Your task to perform on an android device: toggle notifications settings in the gmail app Image 0: 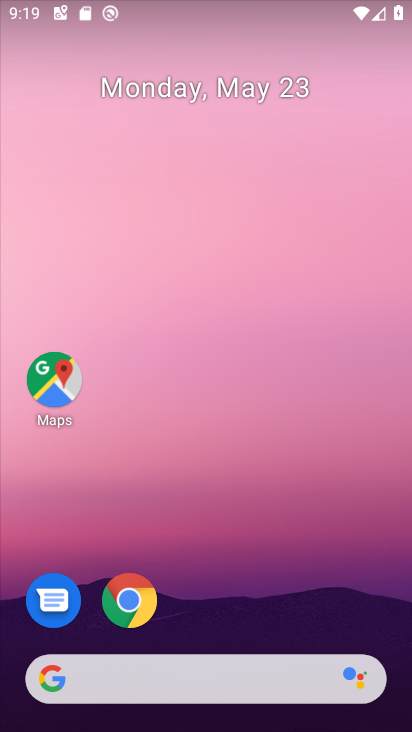
Step 0: click (129, 596)
Your task to perform on an android device: toggle notifications settings in the gmail app Image 1: 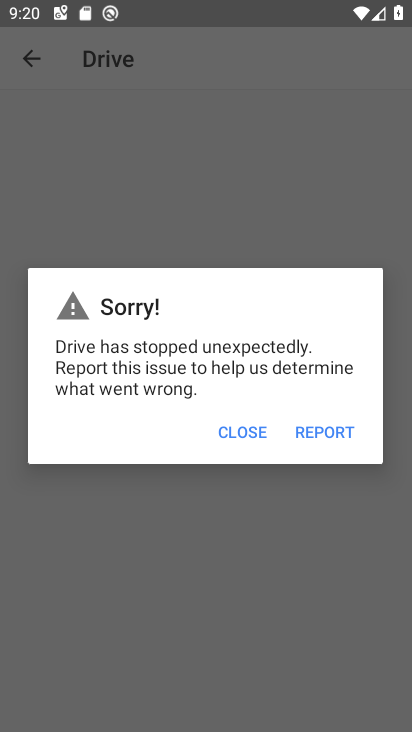
Step 1: click (247, 431)
Your task to perform on an android device: toggle notifications settings in the gmail app Image 2: 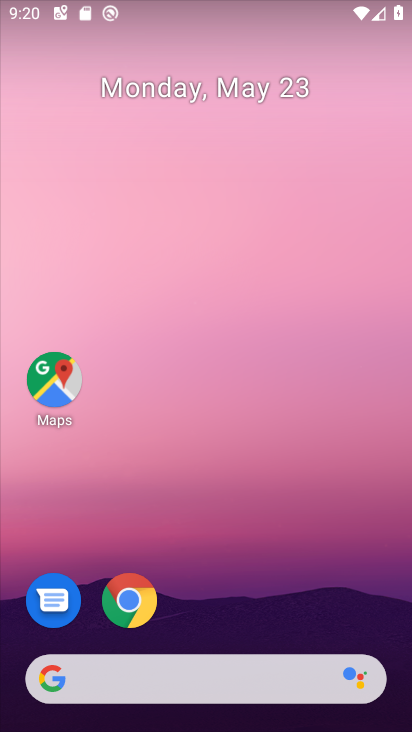
Step 2: drag from (188, 719) to (134, 159)
Your task to perform on an android device: toggle notifications settings in the gmail app Image 3: 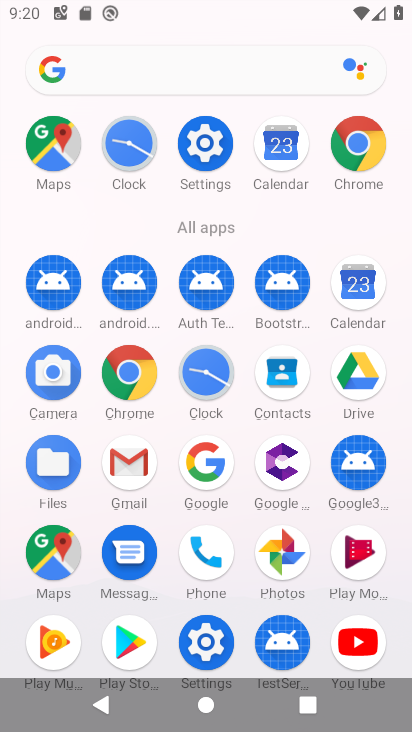
Step 3: click (126, 461)
Your task to perform on an android device: toggle notifications settings in the gmail app Image 4: 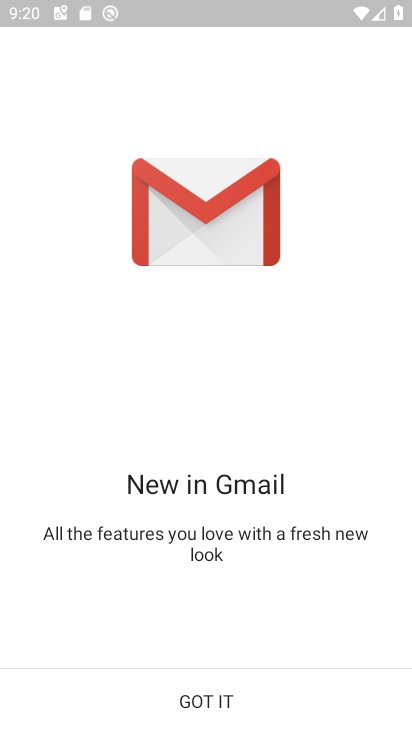
Step 4: click (202, 695)
Your task to perform on an android device: toggle notifications settings in the gmail app Image 5: 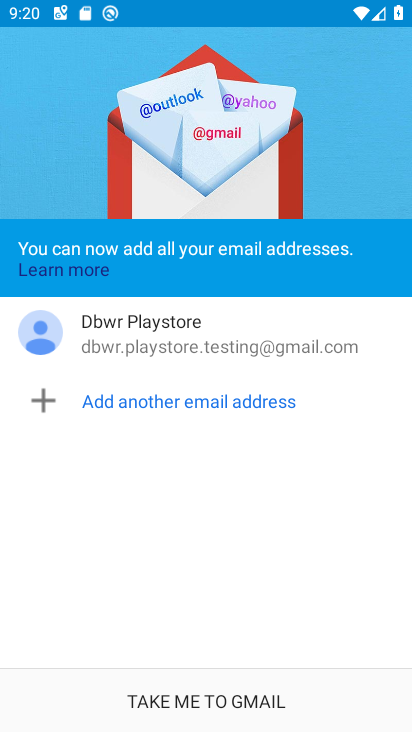
Step 5: click (188, 694)
Your task to perform on an android device: toggle notifications settings in the gmail app Image 6: 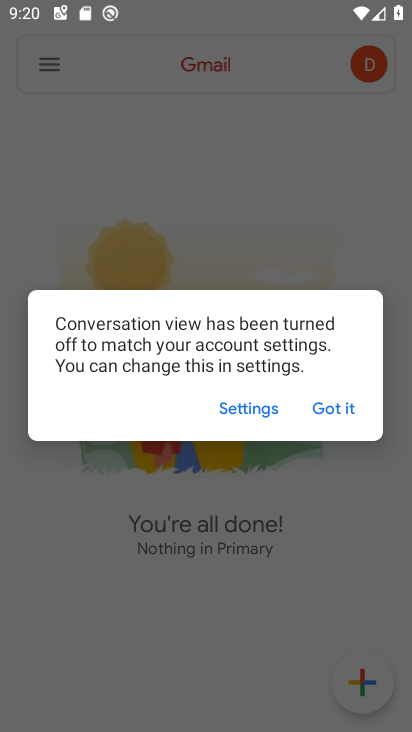
Step 6: click (333, 409)
Your task to perform on an android device: toggle notifications settings in the gmail app Image 7: 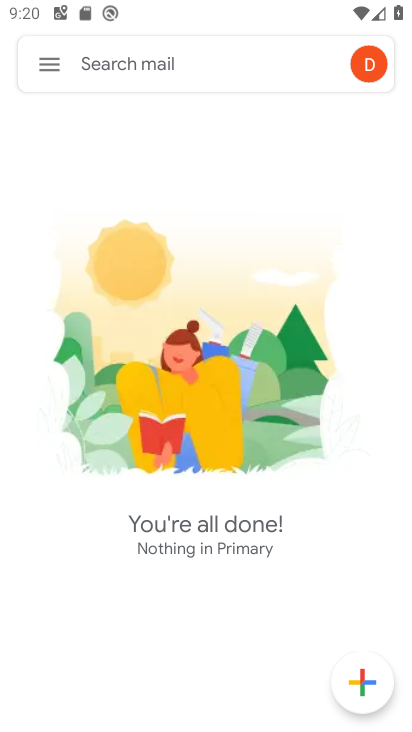
Step 7: click (44, 63)
Your task to perform on an android device: toggle notifications settings in the gmail app Image 8: 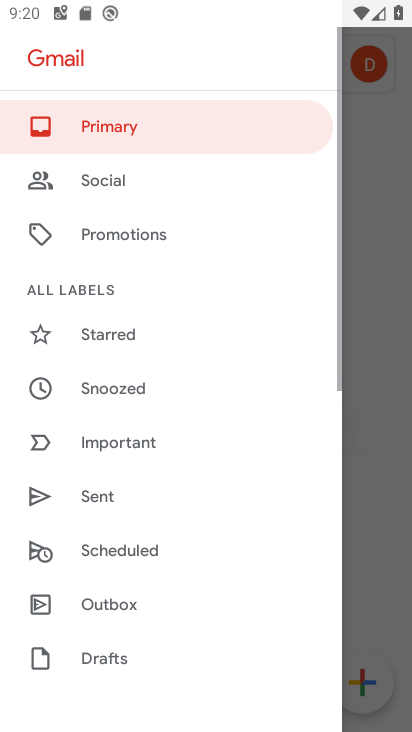
Step 8: drag from (129, 672) to (105, 272)
Your task to perform on an android device: toggle notifications settings in the gmail app Image 9: 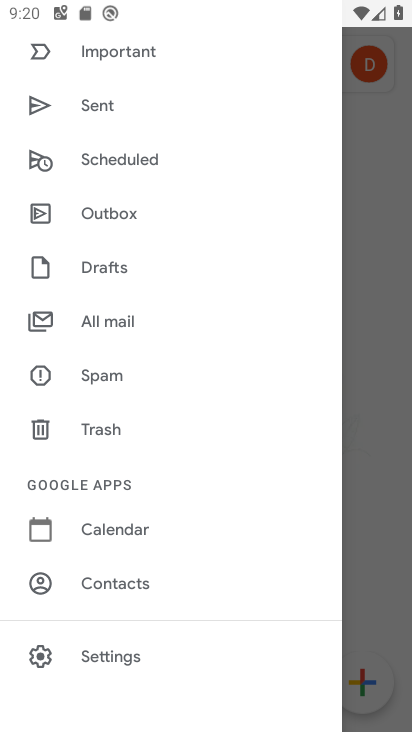
Step 9: click (103, 654)
Your task to perform on an android device: toggle notifications settings in the gmail app Image 10: 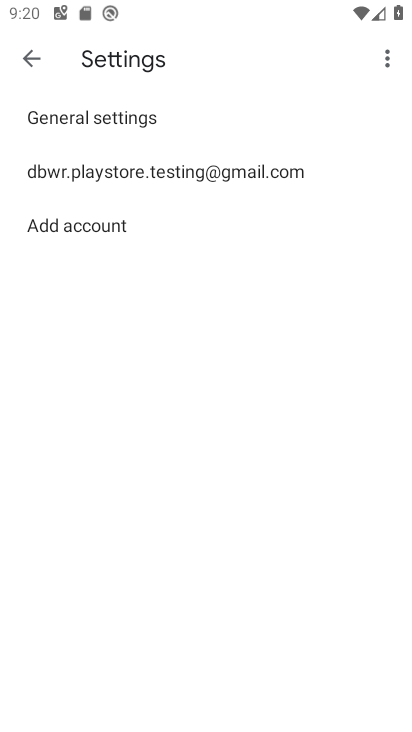
Step 10: click (156, 167)
Your task to perform on an android device: toggle notifications settings in the gmail app Image 11: 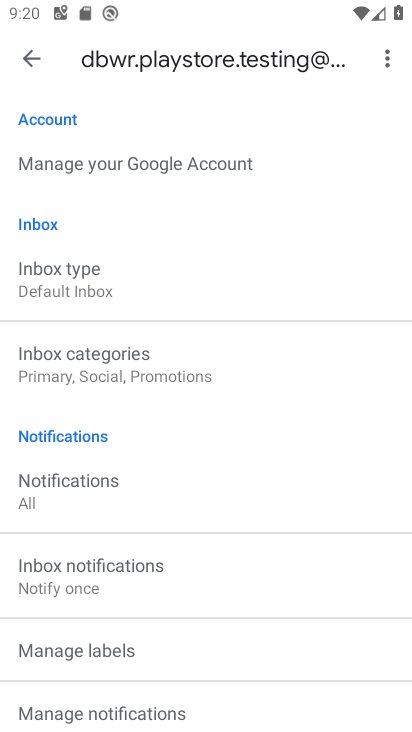
Step 11: click (66, 484)
Your task to perform on an android device: toggle notifications settings in the gmail app Image 12: 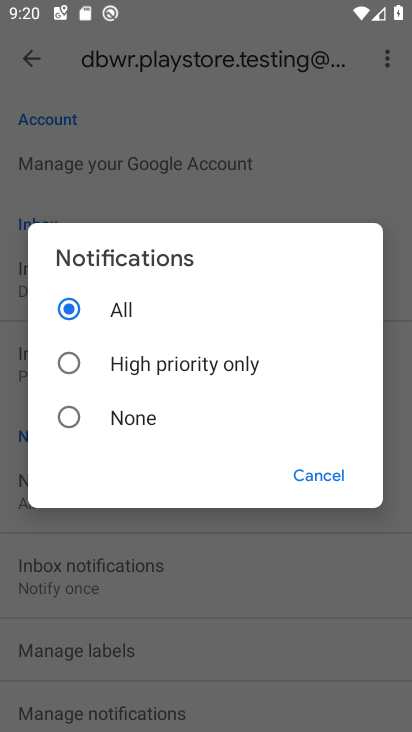
Step 12: click (68, 407)
Your task to perform on an android device: toggle notifications settings in the gmail app Image 13: 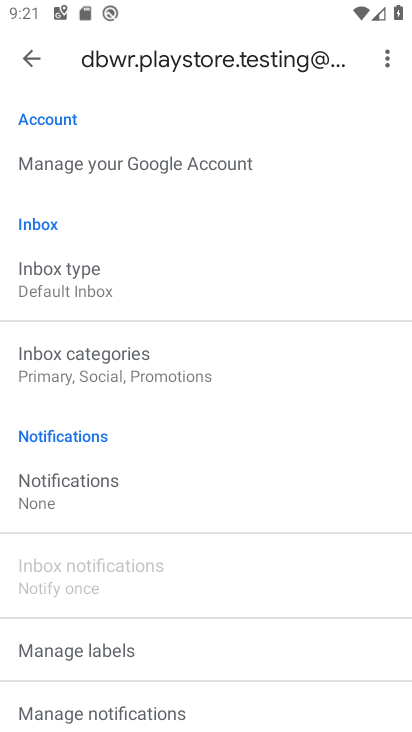
Step 13: task complete